Your task to perform on an android device: Open Youtube and go to the subscriptions tab Image 0: 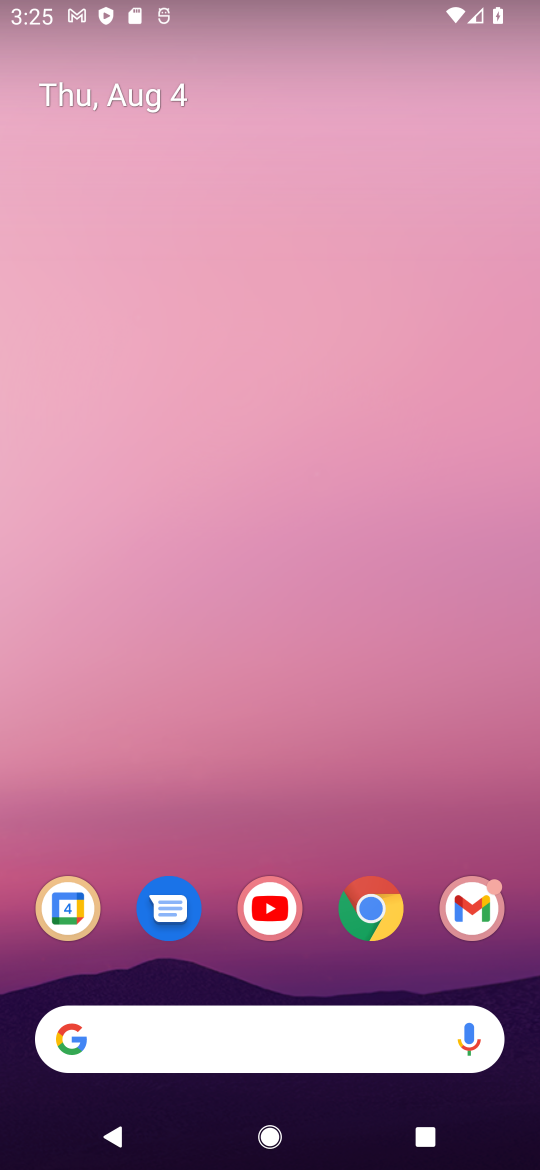
Step 0: click (283, 908)
Your task to perform on an android device: Open Youtube and go to the subscriptions tab Image 1: 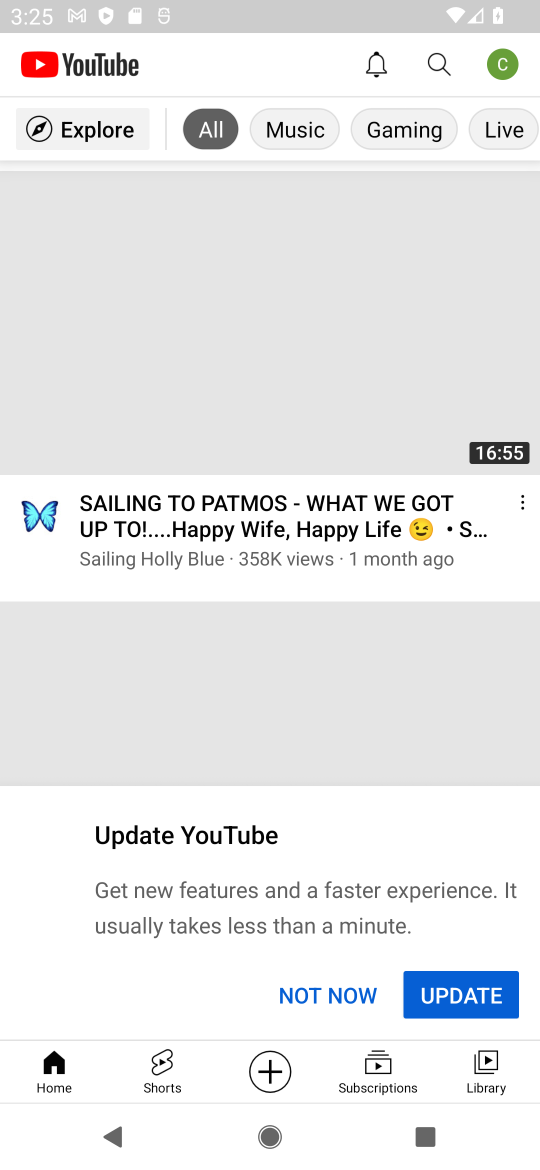
Step 1: click (377, 1065)
Your task to perform on an android device: Open Youtube and go to the subscriptions tab Image 2: 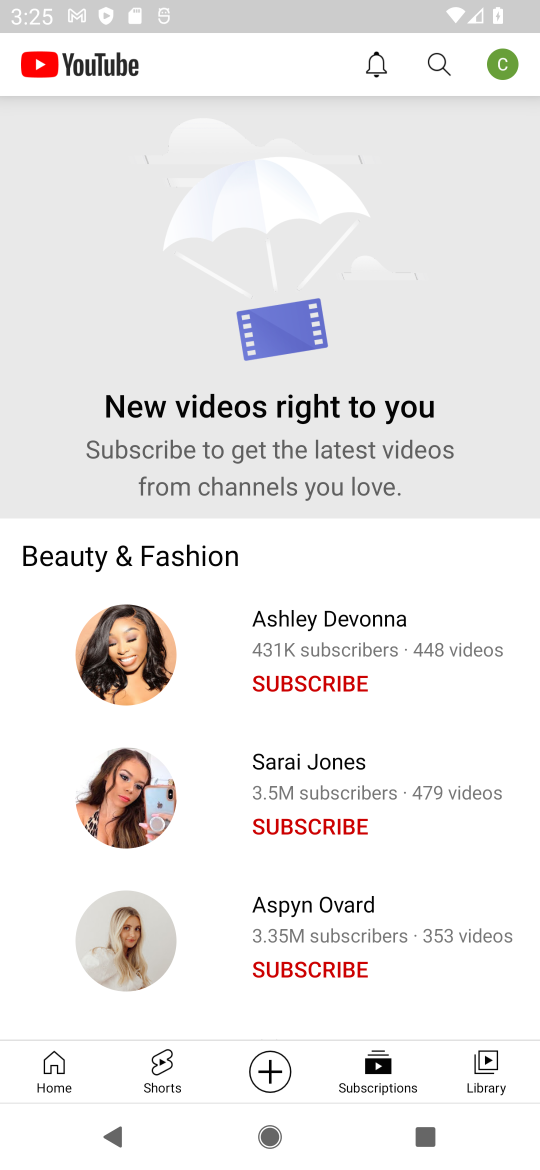
Step 2: task complete